Your task to perform on an android device: Open Yahoo.com Image 0: 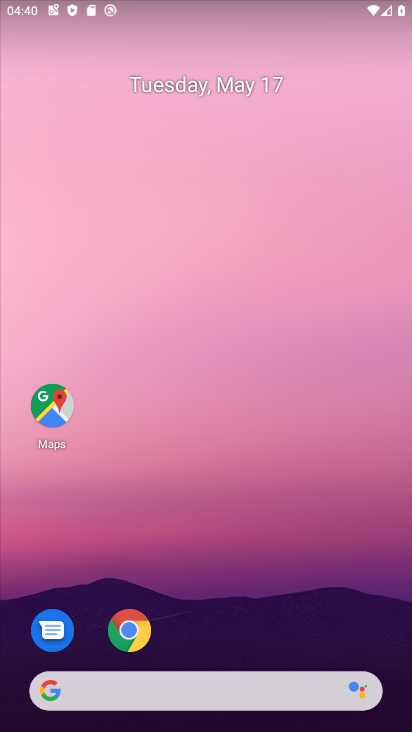
Step 0: click (119, 635)
Your task to perform on an android device: Open Yahoo.com Image 1: 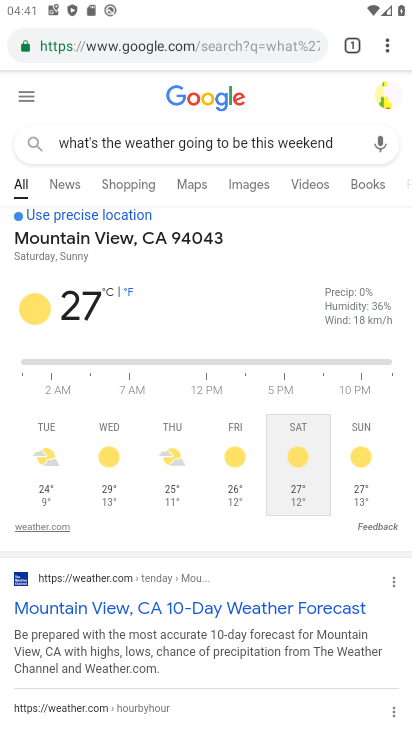
Step 1: click (73, 38)
Your task to perform on an android device: Open Yahoo.com Image 2: 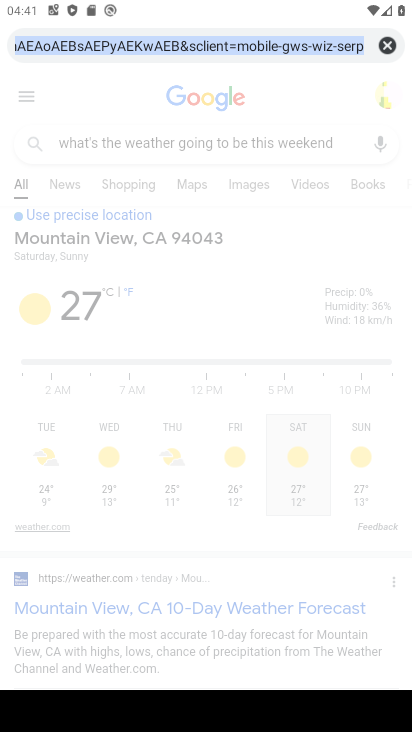
Step 2: click (380, 45)
Your task to perform on an android device: Open Yahoo.com Image 3: 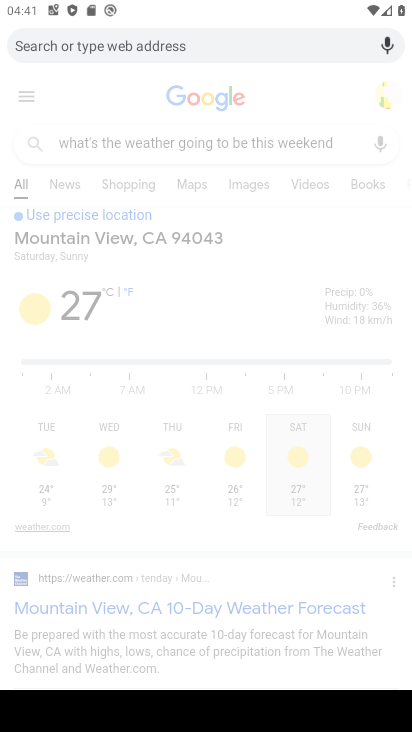
Step 3: type " Yahoo.com"
Your task to perform on an android device: Open Yahoo.com Image 4: 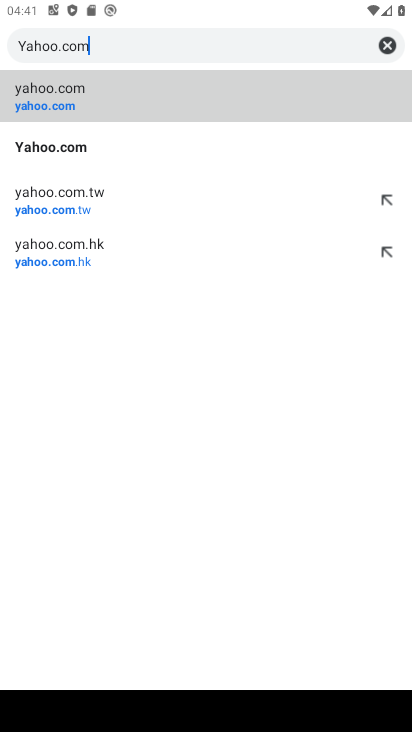
Step 4: click (32, 106)
Your task to perform on an android device: Open Yahoo.com Image 5: 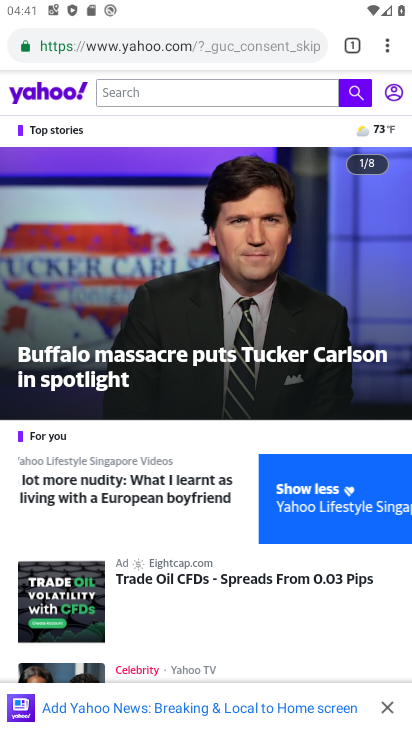
Step 5: task complete